Your task to perform on an android device: Open eBay Image 0: 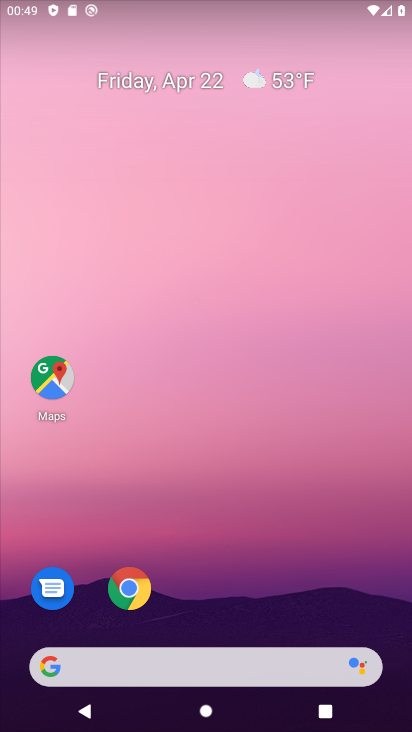
Step 0: click (138, 588)
Your task to perform on an android device: Open eBay Image 1: 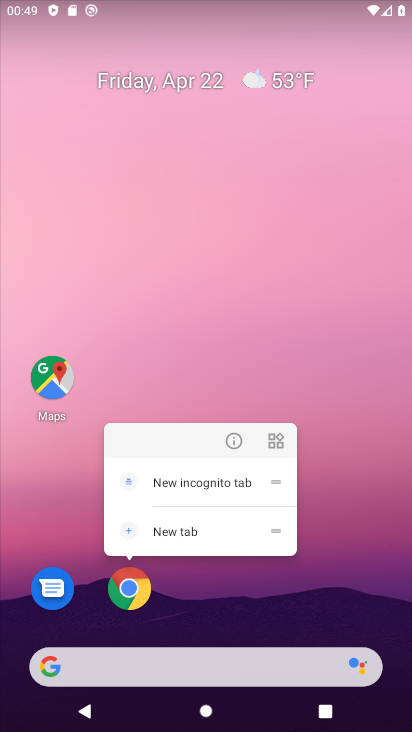
Step 1: click (127, 585)
Your task to perform on an android device: Open eBay Image 2: 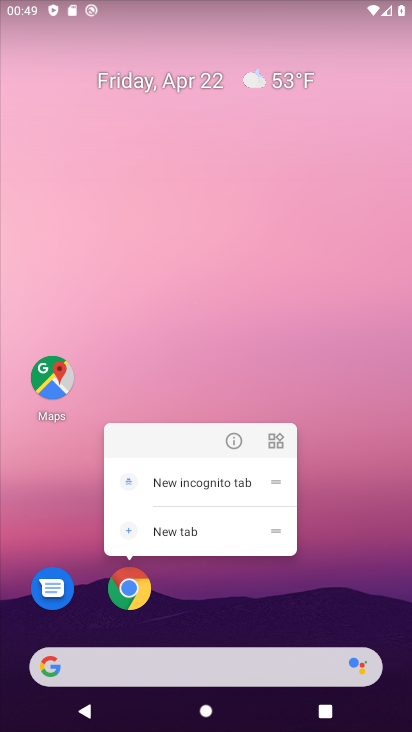
Step 2: click (127, 589)
Your task to perform on an android device: Open eBay Image 3: 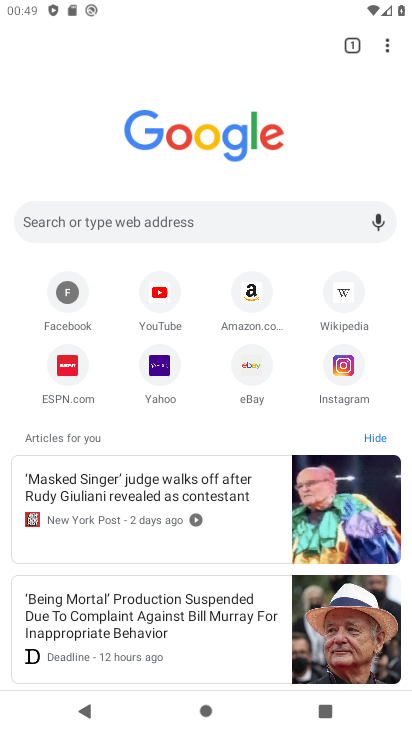
Step 3: click (143, 228)
Your task to perform on an android device: Open eBay Image 4: 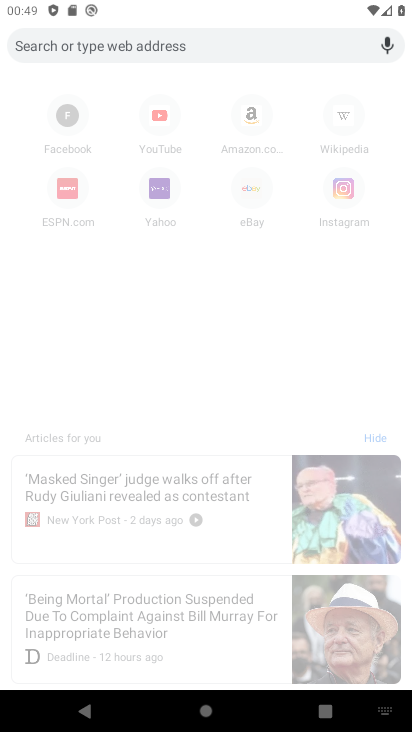
Step 4: type "ebay"
Your task to perform on an android device: Open eBay Image 5: 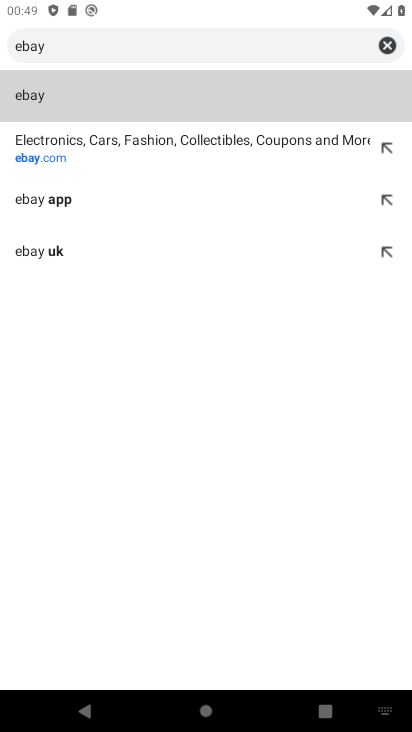
Step 5: click (107, 102)
Your task to perform on an android device: Open eBay Image 6: 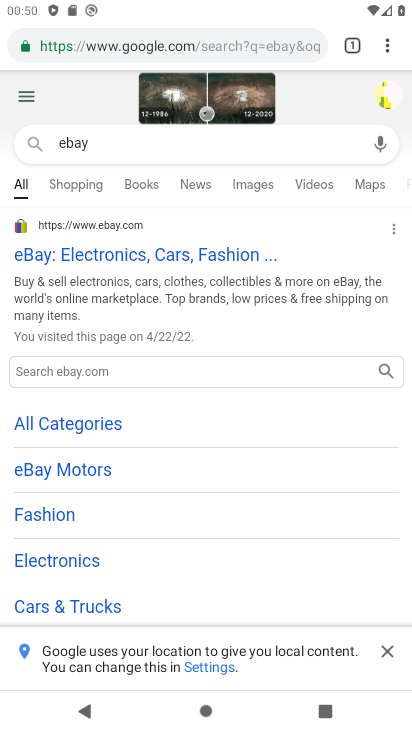
Step 6: click (87, 248)
Your task to perform on an android device: Open eBay Image 7: 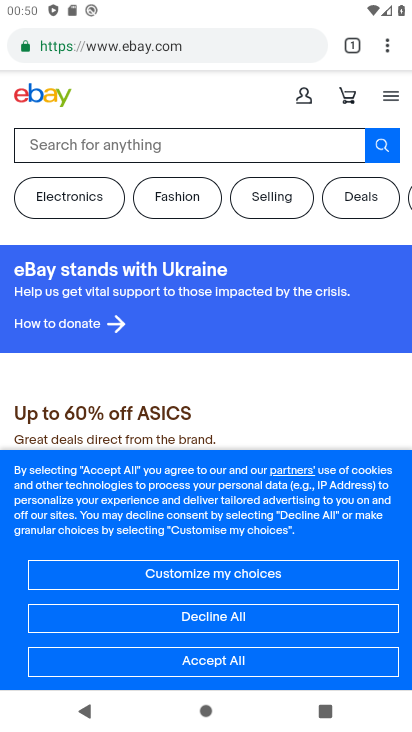
Step 7: task complete